Your task to perform on an android device: What's the weather? Image 0: 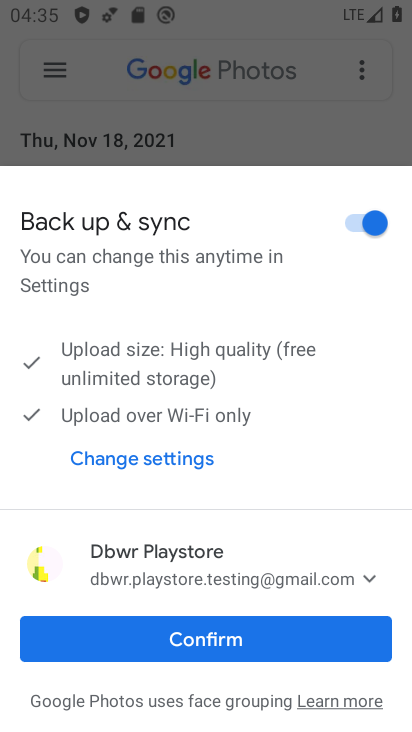
Step 0: press home button
Your task to perform on an android device: What's the weather? Image 1: 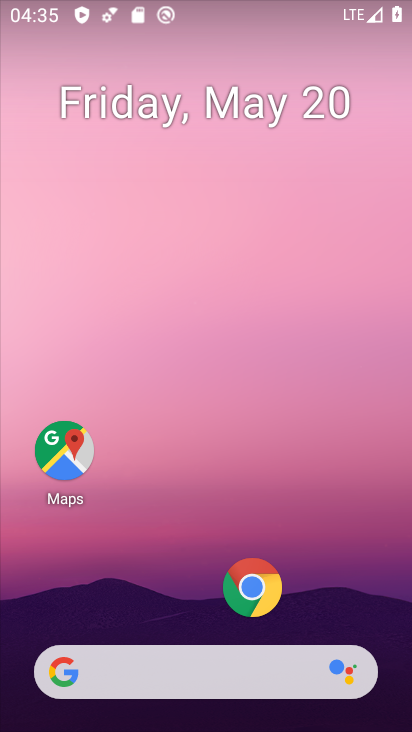
Step 1: click (204, 689)
Your task to perform on an android device: What's the weather? Image 2: 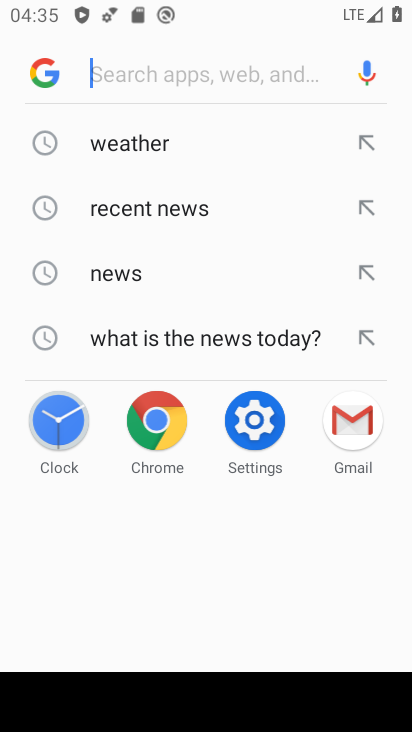
Step 2: click (150, 149)
Your task to perform on an android device: What's the weather? Image 3: 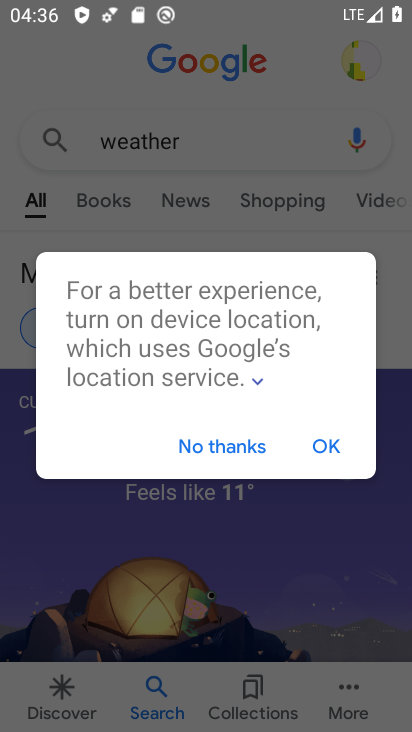
Step 3: click (344, 456)
Your task to perform on an android device: What's the weather? Image 4: 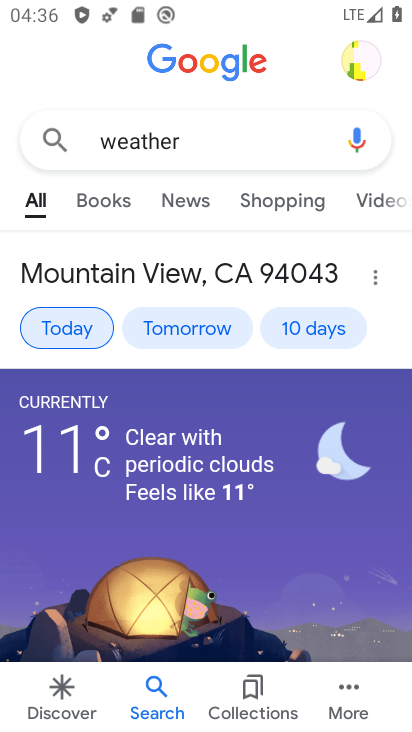
Step 4: task complete